Your task to perform on an android device: change text size in settings app Image 0: 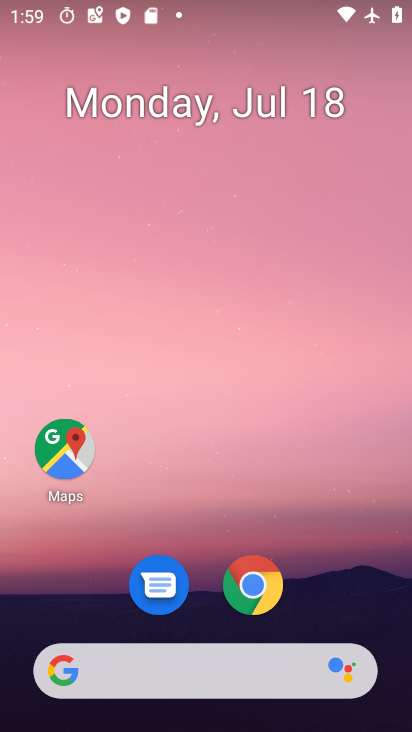
Step 0: press home button
Your task to perform on an android device: change text size in settings app Image 1: 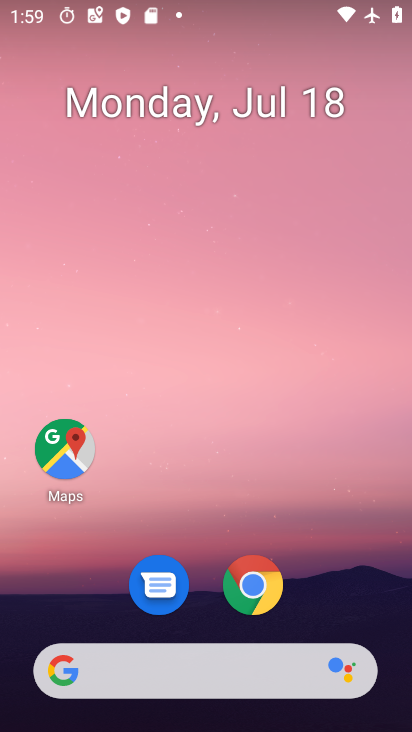
Step 1: drag from (232, 655) to (315, 145)
Your task to perform on an android device: change text size in settings app Image 2: 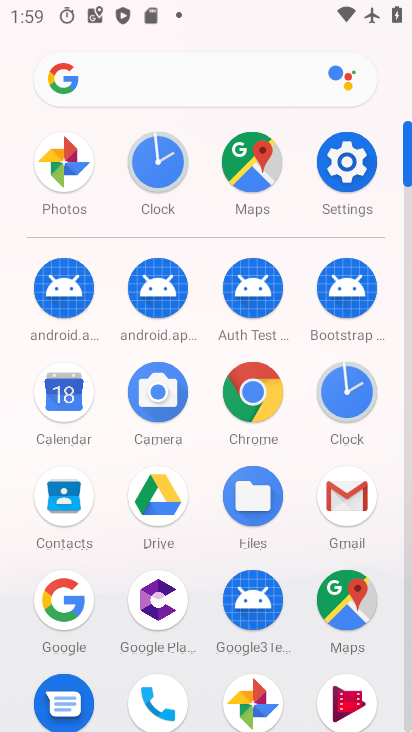
Step 2: click (338, 168)
Your task to perform on an android device: change text size in settings app Image 3: 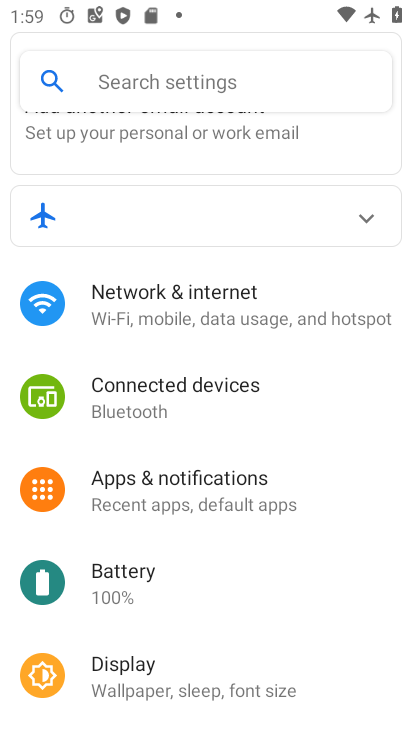
Step 3: drag from (246, 558) to (315, 312)
Your task to perform on an android device: change text size in settings app Image 4: 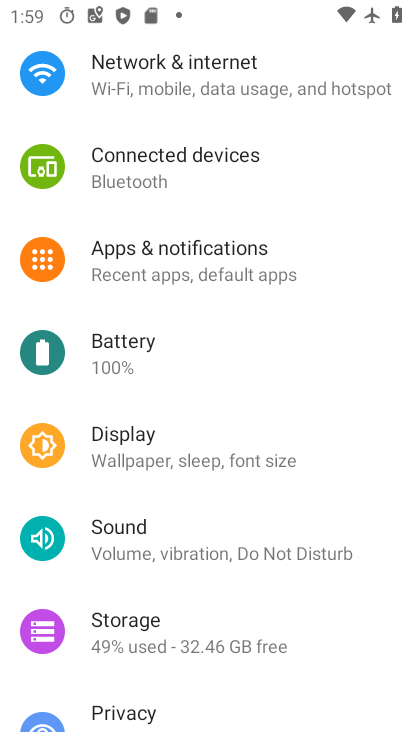
Step 4: click (225, 458)
Your task to perform on an android device: change text size in settings app Image 5: 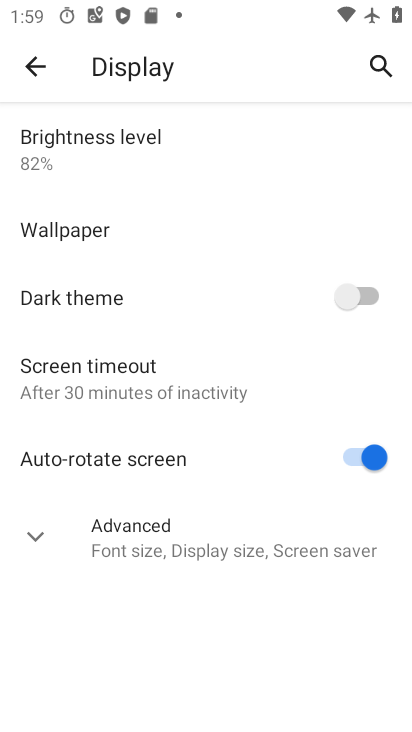
Step 5: click (119, 528)
Your task to perform on an android device: change text size in settings app Image 6: 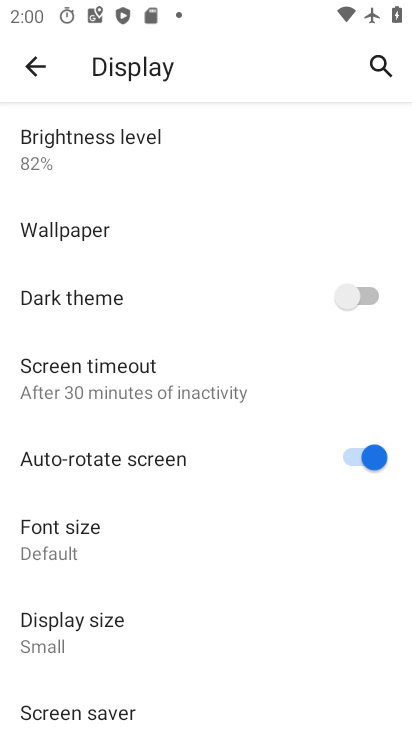
Step 6: click (95, 626)
Your task to perform on an android device: change text size in settings app Image 7: 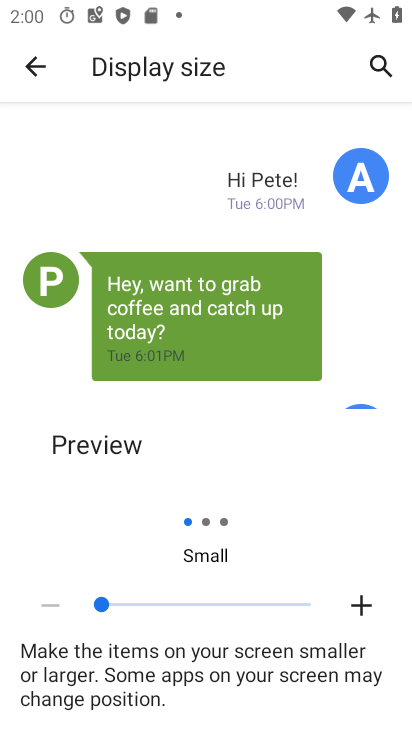
Step 7: click (33, 67)
Your task to perform on an android device: change text size in settings app Image 8: 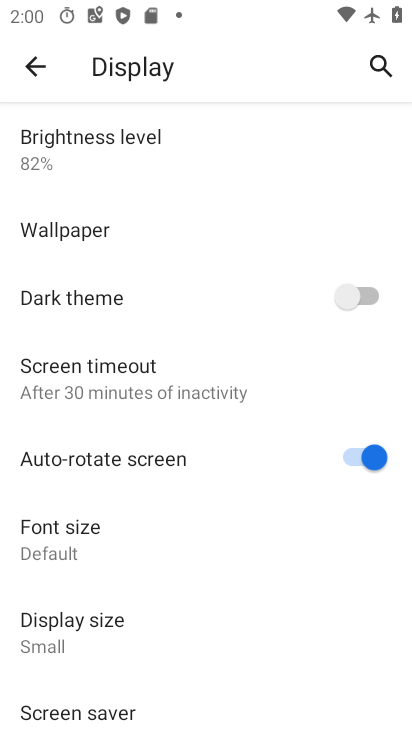
Step 8: click (84, 529)
Your task to perform on an android device: change text size in settings app Image 9: 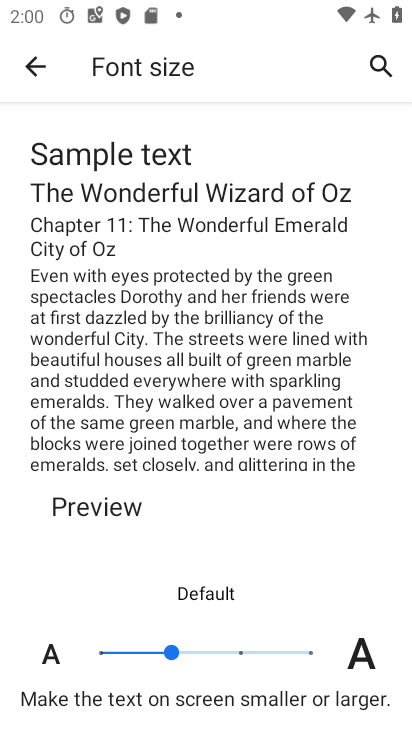
Step 9: click (100, 651)
Your task to perform on an android device: change text size in settings app Image 10: 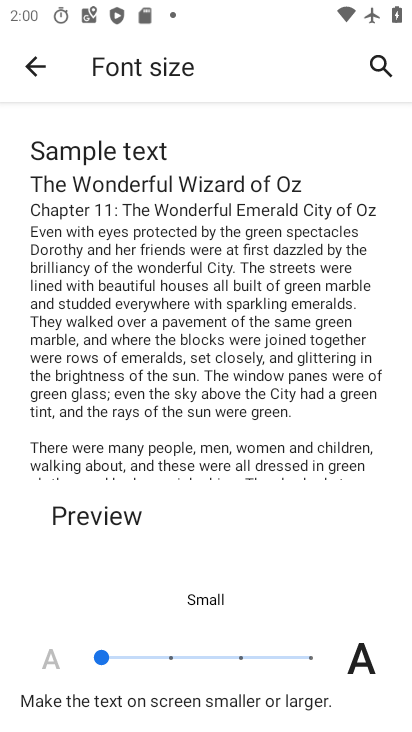
Step 10: task complete